Your task to perform on an android device: What's the weather? Image 0: 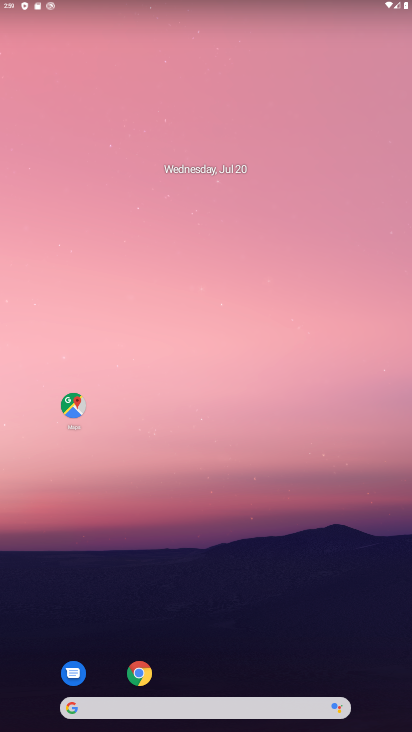
Step 0: click (201, 707)
Your task to perform on an android device: What's the weather? Image 1: 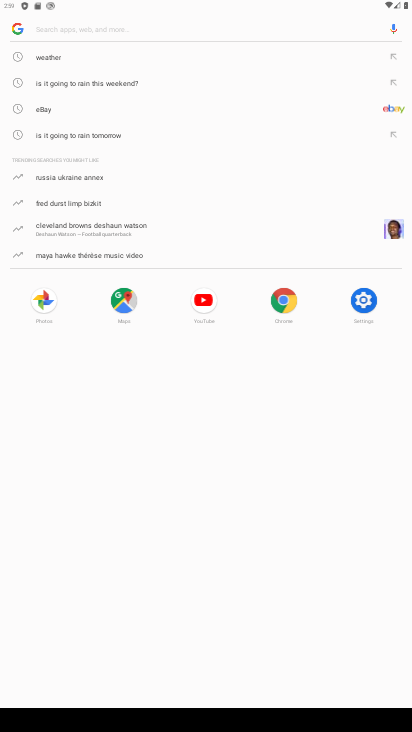
Step 1: type "What's the weather?"
Your task to perform on an android device: What's the weather? Image 2: 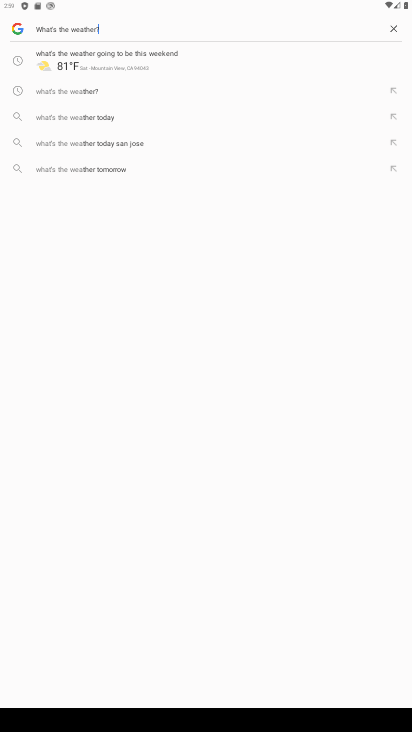
Step 2: type ""
Your task to perform on an android device: What's the weather? Image 3: 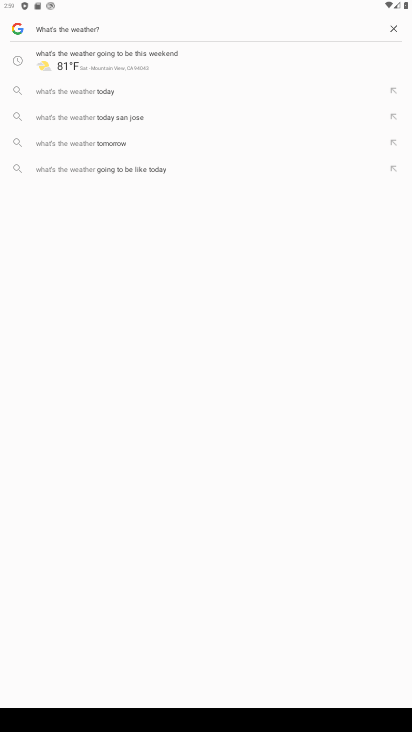
Step 3: press enter
Your task to perform on an android device: What's the weather? Image 4: 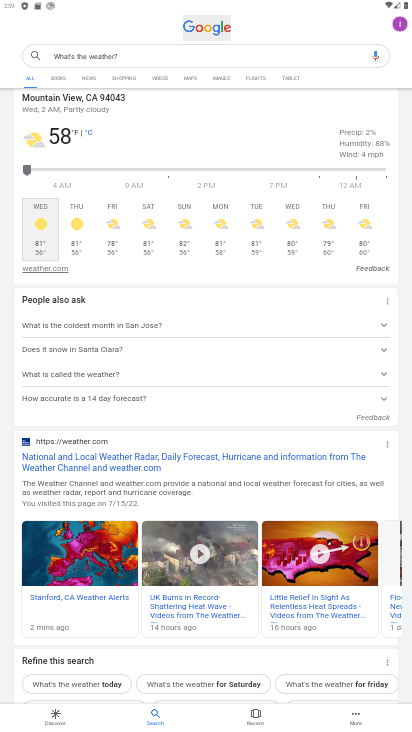
Step 4: task complete